Your task to perform on an android device: toggle sleep mode Image 0: 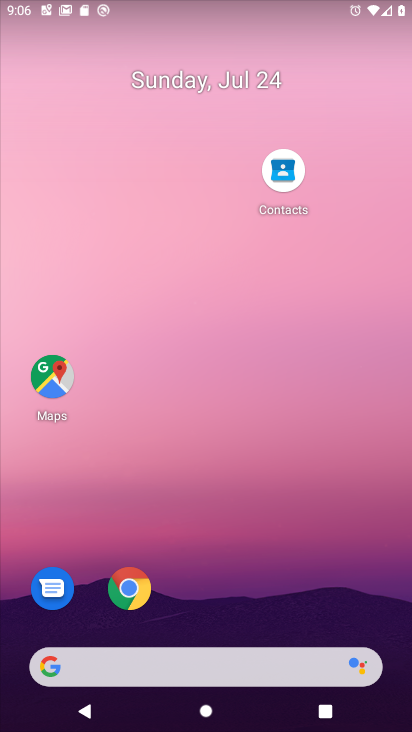
Step 0: press home button
Your task to perform on an android device: toggle sleep mode Image 1: 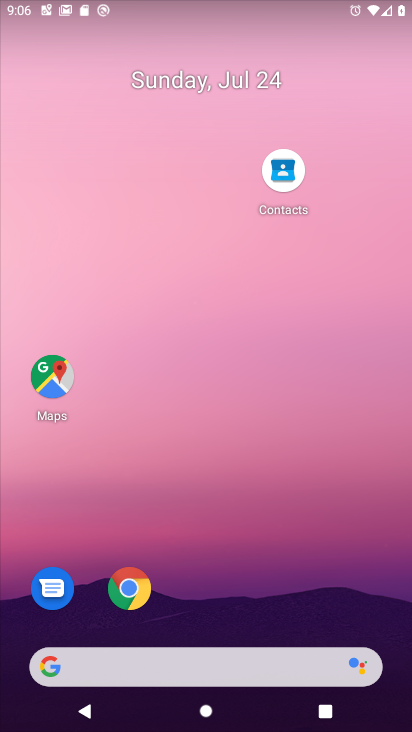
Step 1: drag from (214, 625) to (206, 1)
Your task to perform on an android device: toggle sleep mode Image 2: 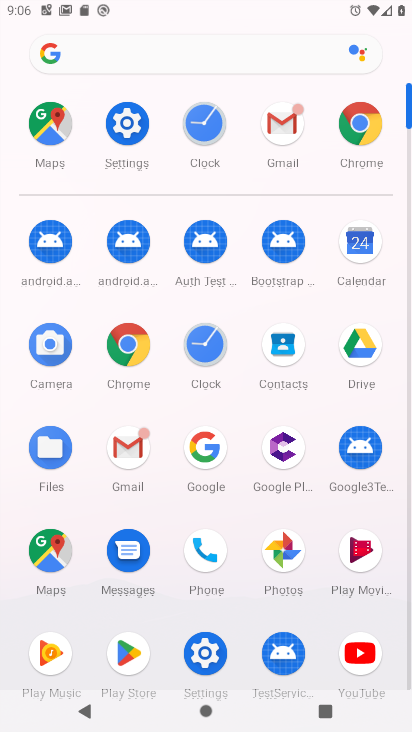
Step 2: click (126, 119)
Your task to perform on an android device: toggle sleep mode Image 3: 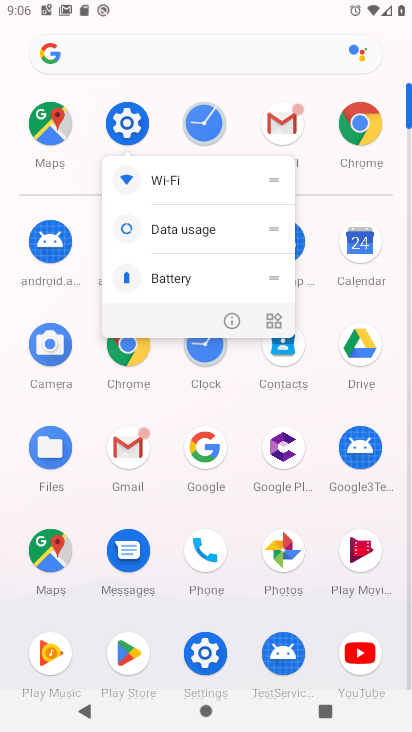
Step 3: click (124, 116)
Your task to perform on an android device: toggle sleep mode Image 4: 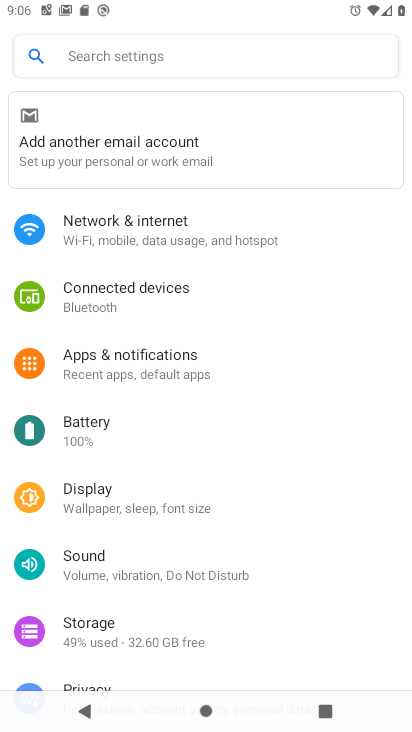
Step 4: click (136, 492)
Your task to perform on an android device: toggle sleep mode Image 5: 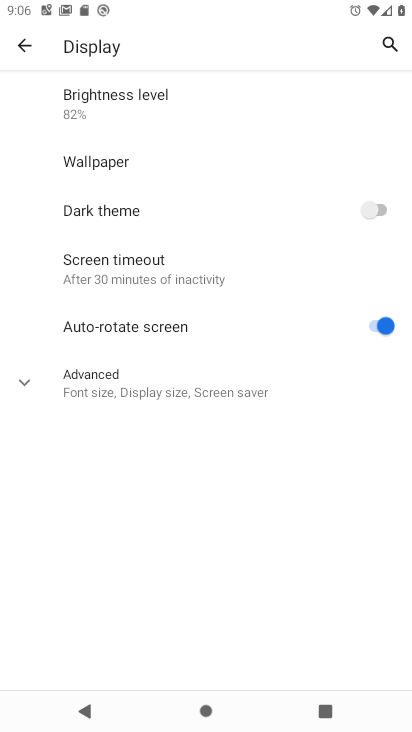
Step 5: click (30, 385)
Your task to perform on an android device: toggle sleep mode Image 6: 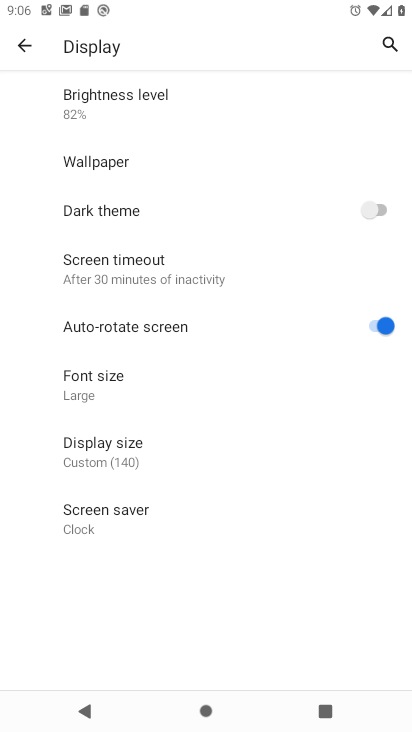
Step 6: task complete